Your task to perform on an android device: Open Chrome and go to settings Image 0: 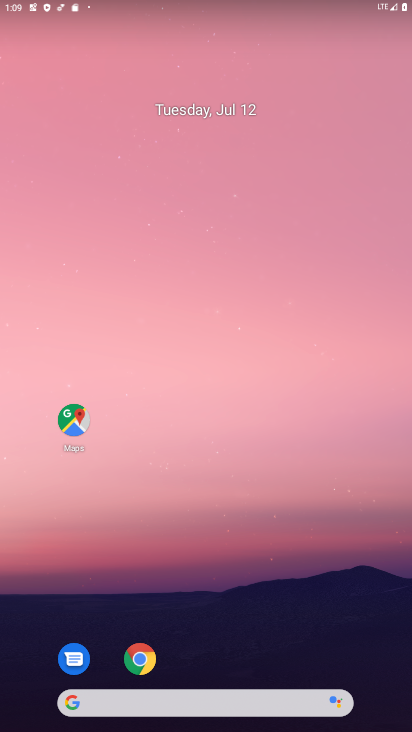
Step 0: click (141, 656)
Your task to perform on an android device: Open Chrome and go to settings Image 1: 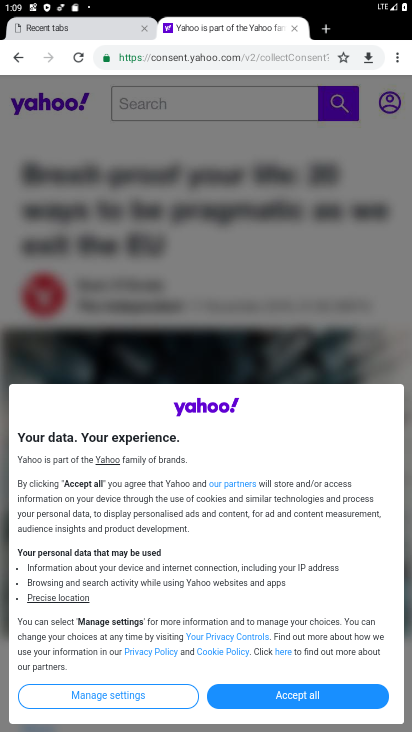
Step 1: click (397, 59)
Your task to perform on an android device: Open Chrome and go to settings Image 2: 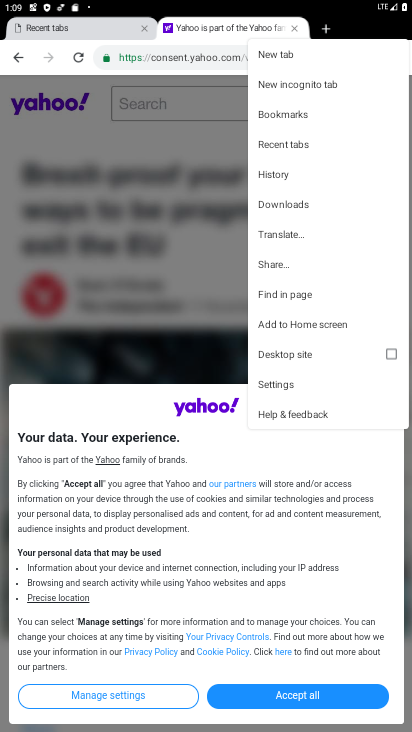
Step 2: click (275, 383)
Your task to perform on an android device: Open Chrome and go to settings Image 3: 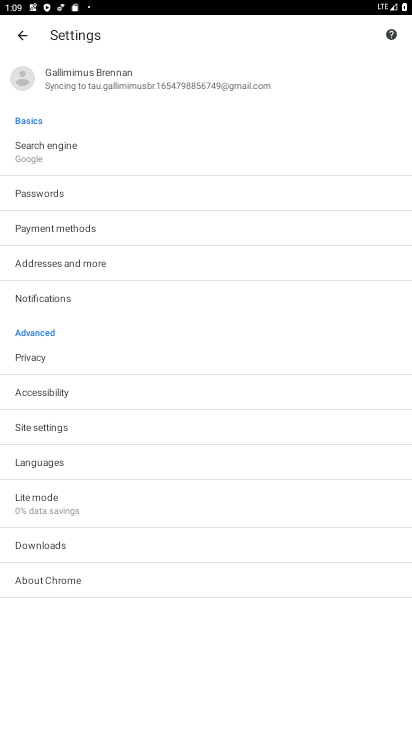
Step 3: task complete